Your task to perform on an android device: Go to eBay Image 0: 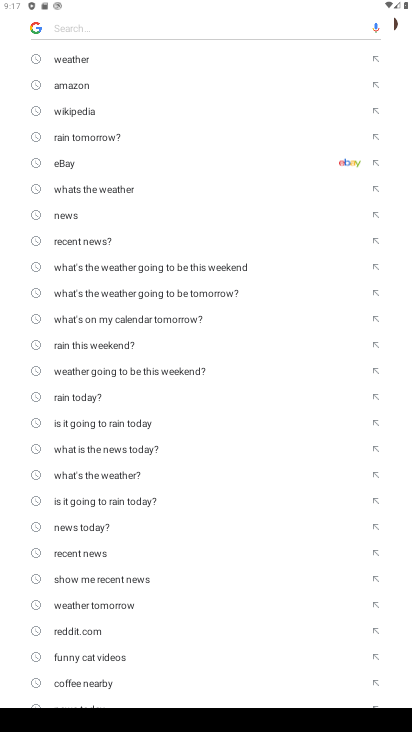
Step 0: press home button
Your task to perform on an android device: Go to eBay Image 1: 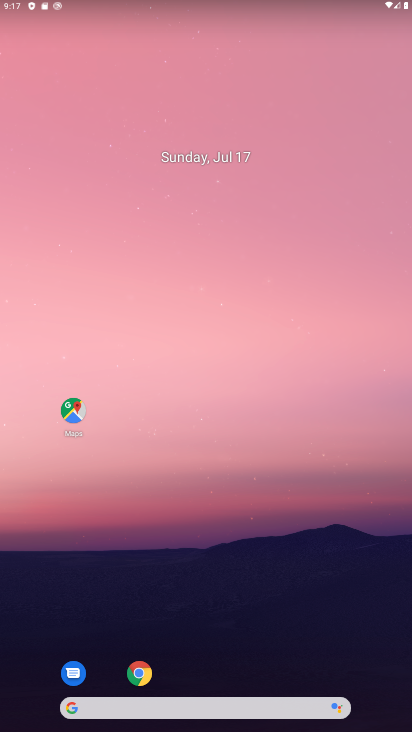
Step 1: click (147, 677)
Your task to perform on an android device: Go to eBay Image 2: 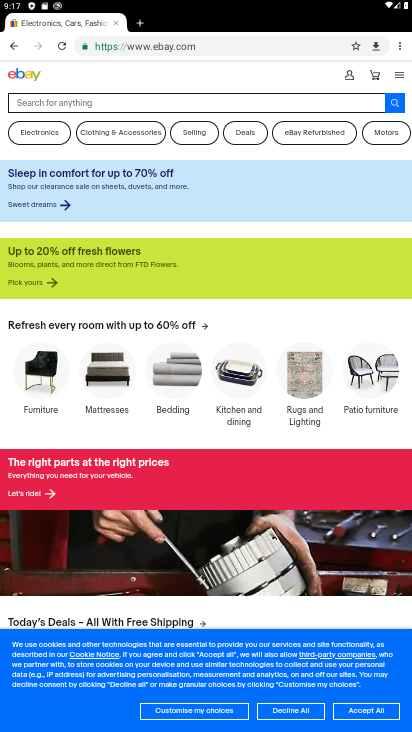
Step 2: task complete